Your task to perform on an android device: turn off priority inbox in the gmail app Image 0: 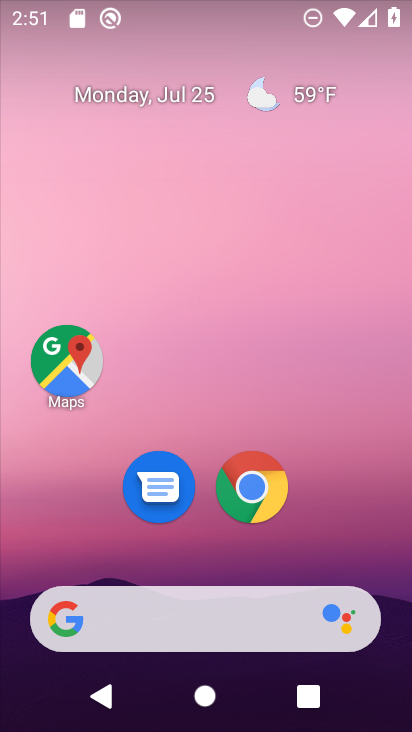
Step 0: click (271, 7)
Your task to perform on an android device: turn off priority inbox in the gmail app Image 1: 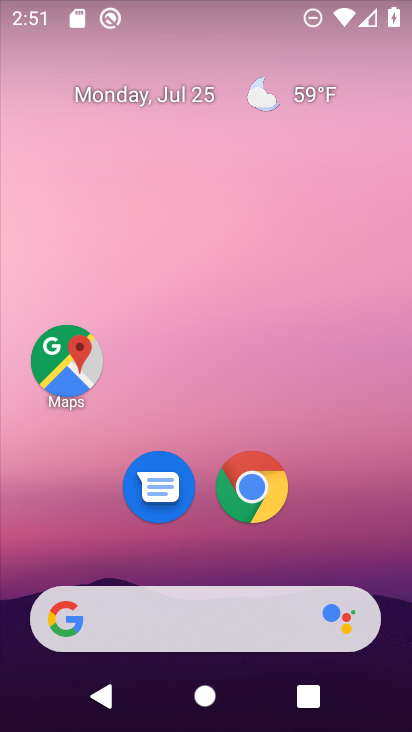
Step 1: drag from (143, 559) to (240, 49)
Your task to perform on an android device: turn off priority inbox in the gmail app Image 2: 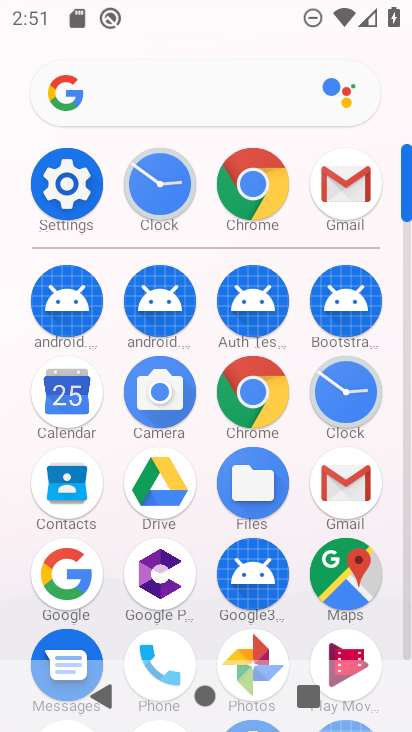
Step 2: click (348, 181)
Your task to perform on an android device: turn off priority inbox in the gmail app Image 3: 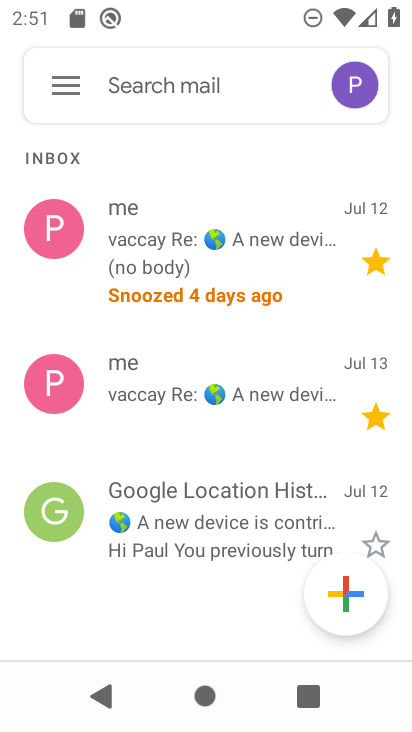
Step 3: click (68, 90)
Your task to perform on an android device: turn off priority inbox in the gmail app Image 4: 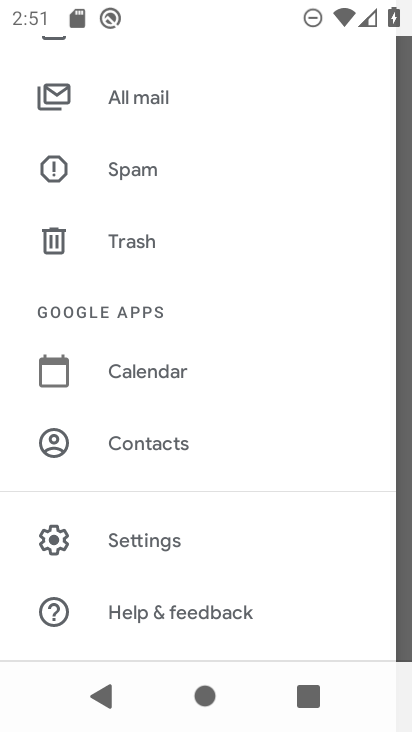
Step 4: click (171, 530)
Your task to perform on an android device: turn off priority inbox in the gmail app Image 5: 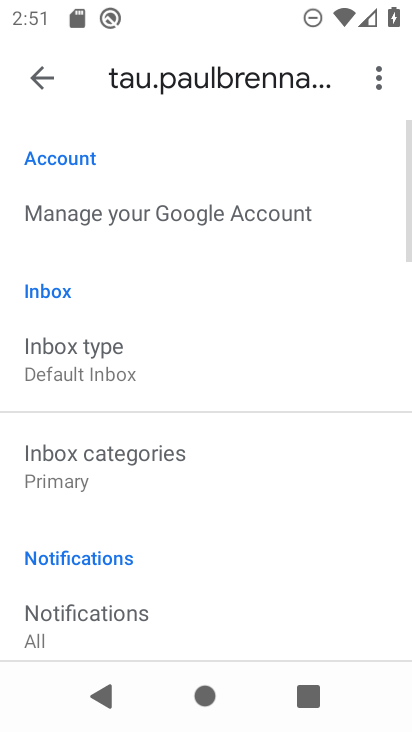
Step 5: click (77, 370)
Your task to perform on an android device: turn off priority inbox in the gmail app Image 6: 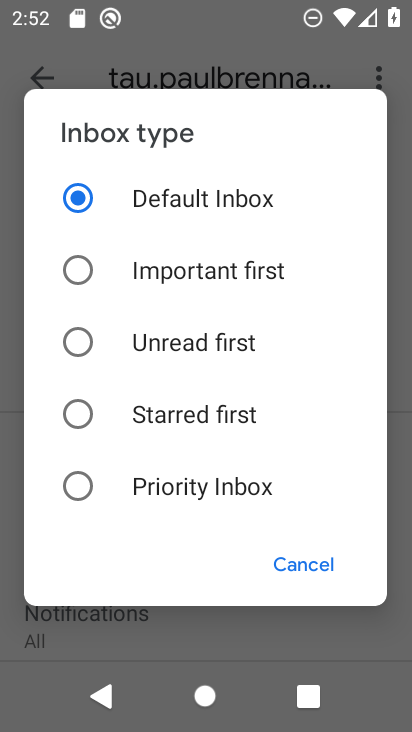
Step 6: click (82, 190)
Your task to perform on an android device: turn off priority inbox in the gmail app Image 7: 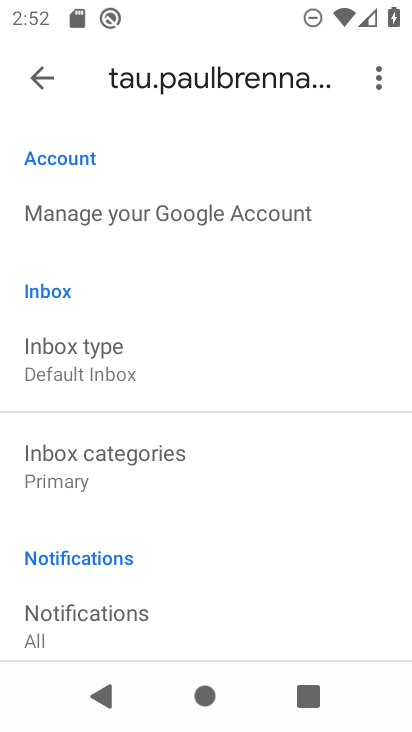
Step 7: task complete